Your task to perform on an android device: Search for Italian restaurants on Maps Image 0: 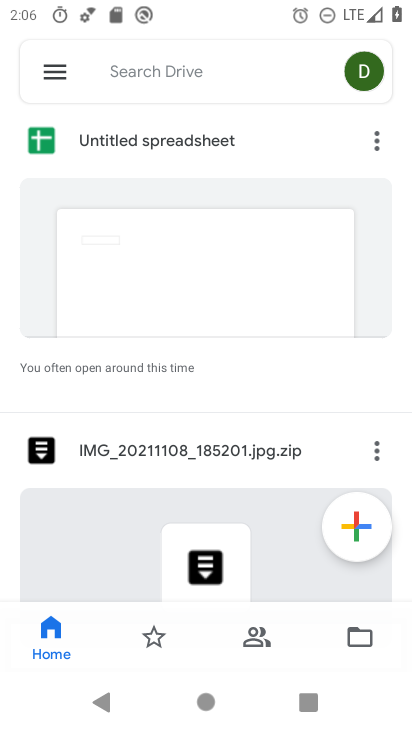
Step 0: press home button
Your task to perform on an android device: Search for Italian restaurants on Maps Image 1: 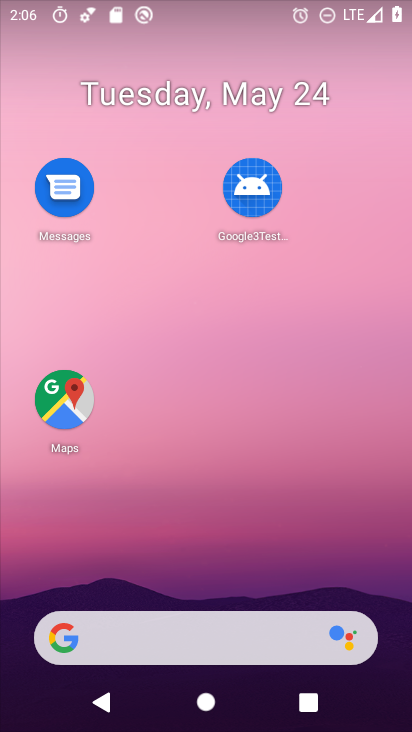
Step 1: click (53, 395)
Your task to perform on an android device: Search for Italian restaurants on Maps Image 2: 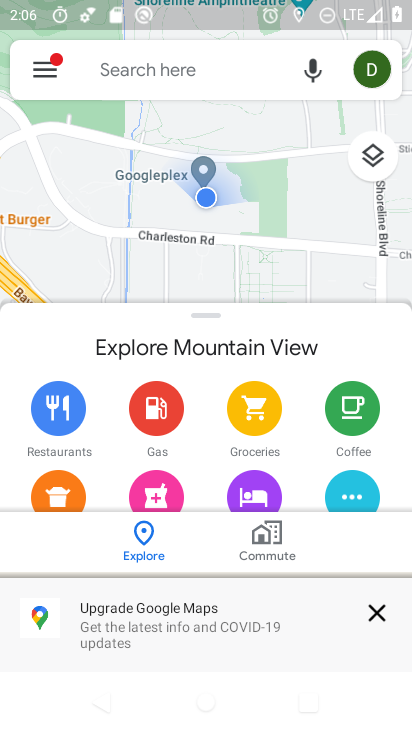
Step 2: click (373, 615)
Your task to perform on an android device: Search for Italian restaurants on Maps Image 3: 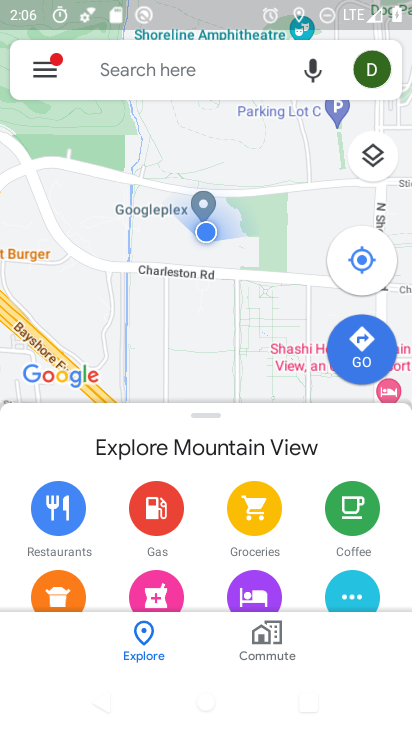
Step 3: click (139, 76)
Your task to perform on an android device: Search for Italian restaurants on Maps Image 4: 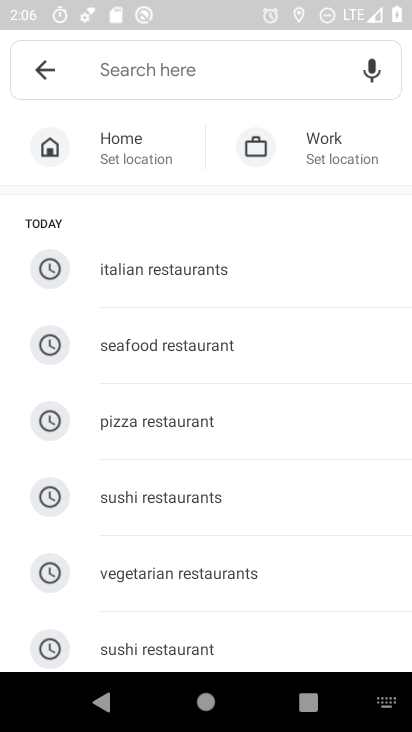
Step 4: click (157, 264)
Your task to perform on an android device: Search for Italian restaurants on Maps Image 5: 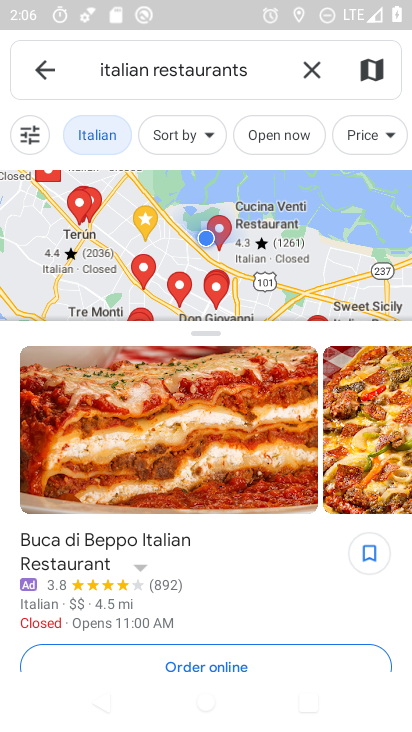
Step 5: task complete